Your task to perform on an android device: Go to ESPN.com Image 0: 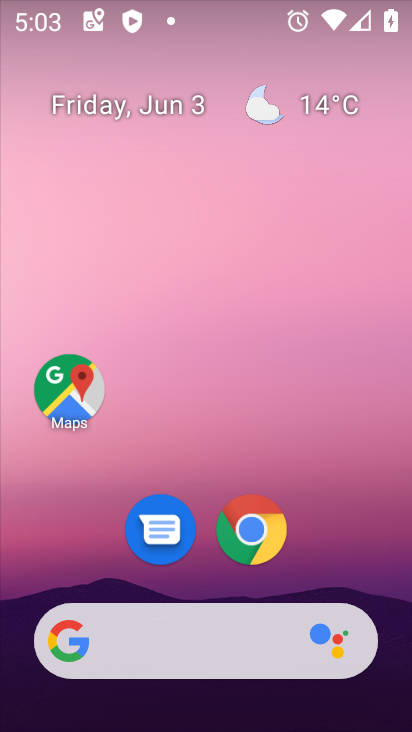
Step 0: click (249, 531)
Your task to perform on an android device: Go to ESPN.com Image 1: 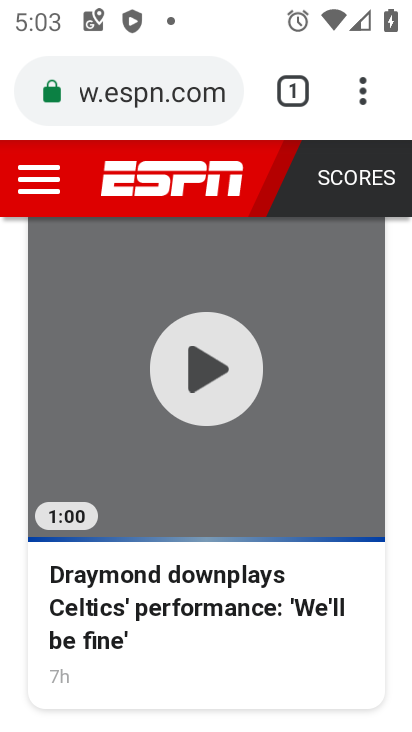
Step 1: press home button
Your task to perform on an android device: Go to ESPN.com Image 2: 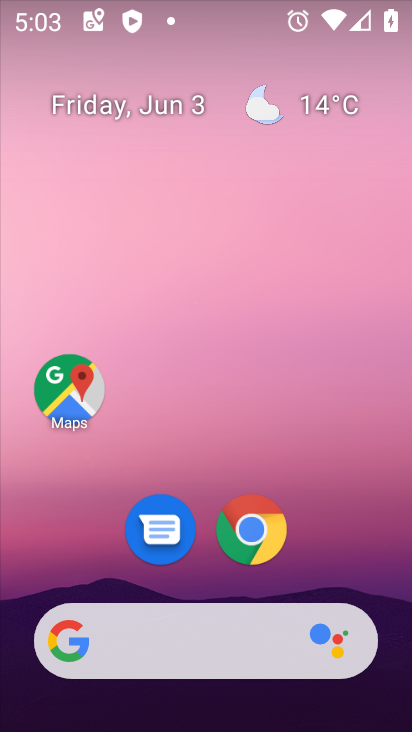
Step 2: click (255, 518)
Your task to perform on an android device: Go to ESPN.com Image 3: 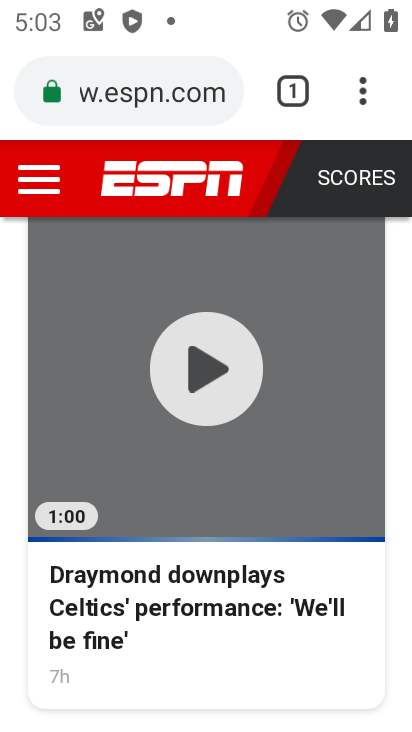
Step 3: task complete